Your task to perform on an android device: uninstall "ZOOM Cloud Meetings" Image 0: 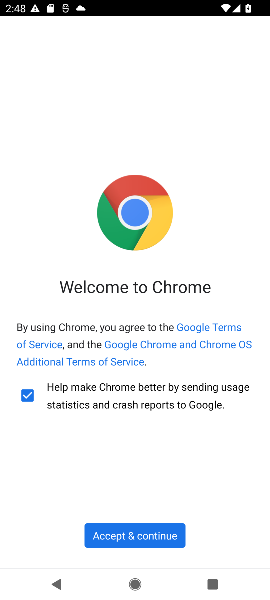
Step 0: press home button
Your task to perform on an android device: uninstall "ZOOM Cloud Meetings" Image 1: 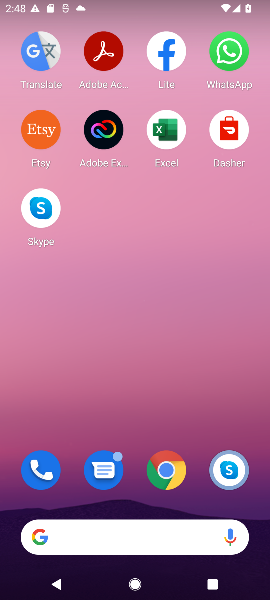
Step 1: drag from (115, 485) to (126, 189)
Your task to perform on an android device: uninstall "ZOOM Cloud Meetings" Image 2: 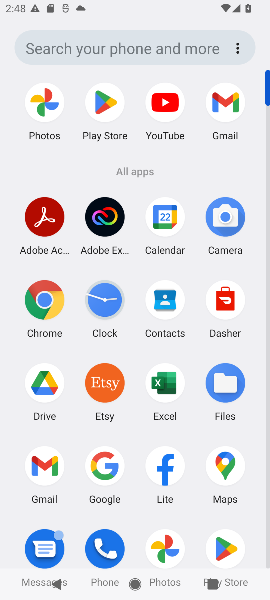
Step 2: click (97, 93)
Your task to perform on an android device: uninstall "ZOOM Cloud Meetings" Image 3: 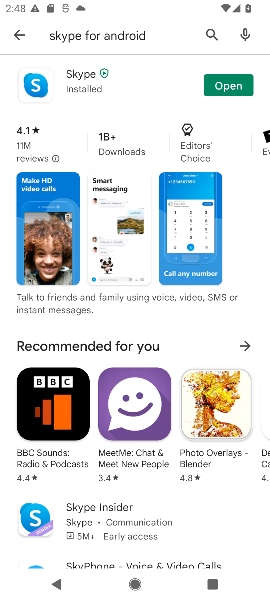
Step 3: click (19, 25)
Your task to perform on an android device: uninstall "ZOOM Cloud Meetings" Image 4: 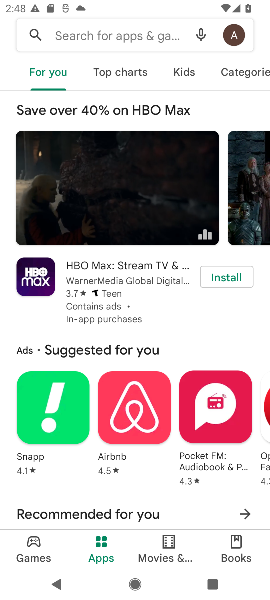
Step 4: click (123, 31)
Your task to perform on an android device: uninstall "ZOOM Cloud Meetings" Image 5: 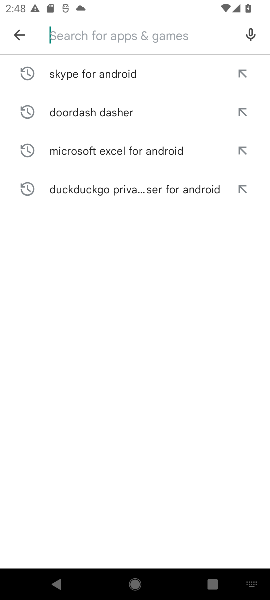
Step 5: type "ZOOM Cloud Meetings "
Your task to perform on an android device: uninstall "ZOOM Cloud Meetings" Image 6: 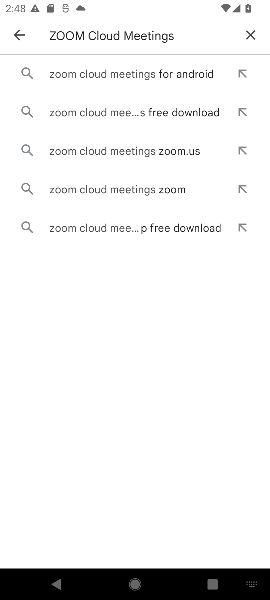
Step 6: click (160, 78)
Your task to perform on an android device: uninstall "ZOOM Cloud Meetings" Image 7: 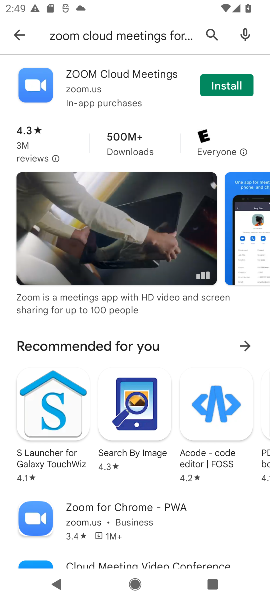
Step 7: task complete